Your task to perform on an android device: Open display settings Image 0: 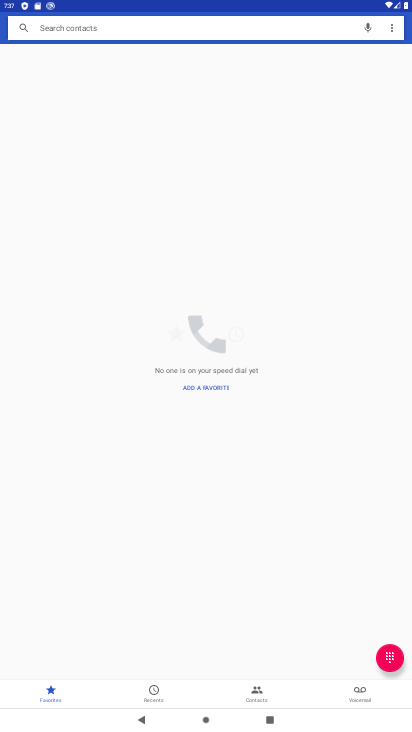
Step 0: press home button
Your task to perform on an android device: Open display settings Image 1: 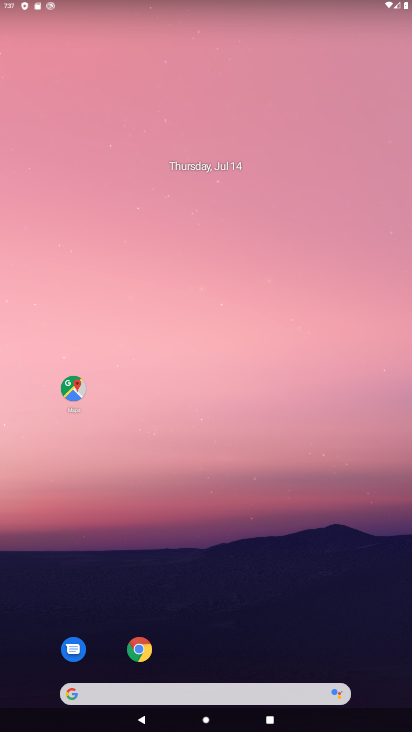
Step 1: drag from (248, 569) to (284, 26)
Your task to perform on an android device: Open display settings Image 2: 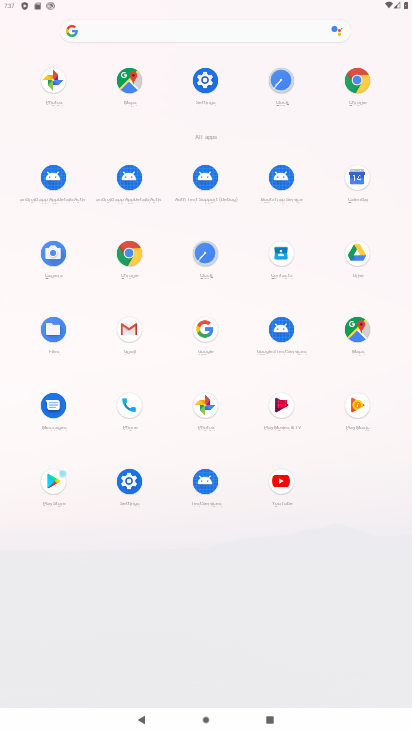
Step 2: click (130, 492)
Your task to perform on an android device: Open display settings Image 3: 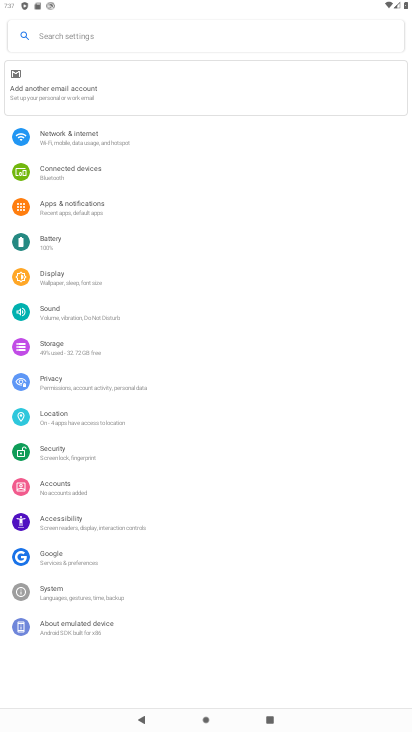
Step 3: click (87, 279)
Your task to perform on an android device: Open display settings Image 4: 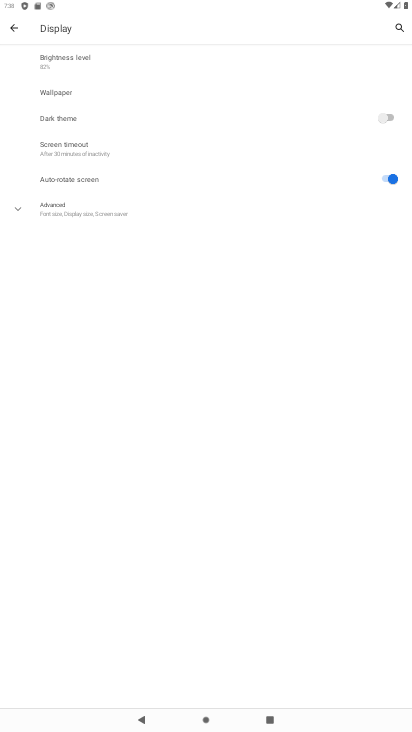
Step 4: task complete